Your task to perform on an android device: Open Amazon Image 0: 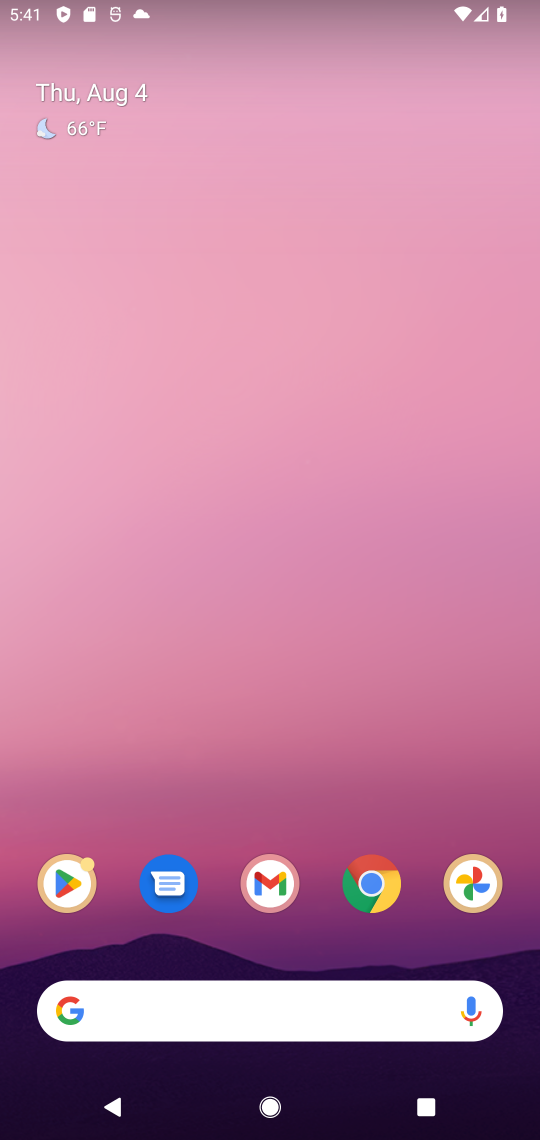
Step 0: click (255, 1015)
Your task to perform on an android device: Open Amazon Image 1: 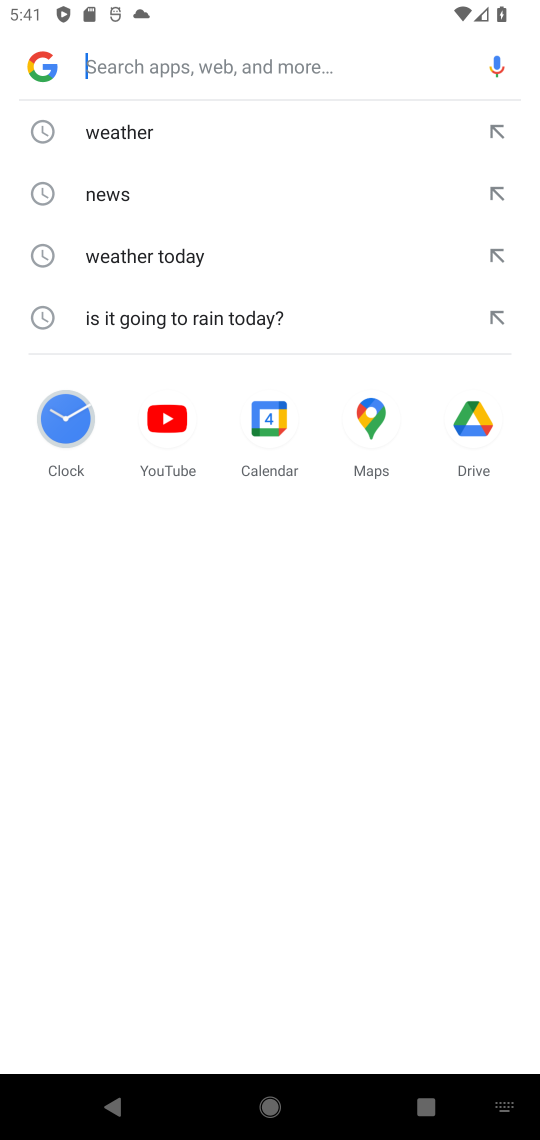
Step 1: type "amazon"
Your task to perform on an android device: Open Amazon Image 2: 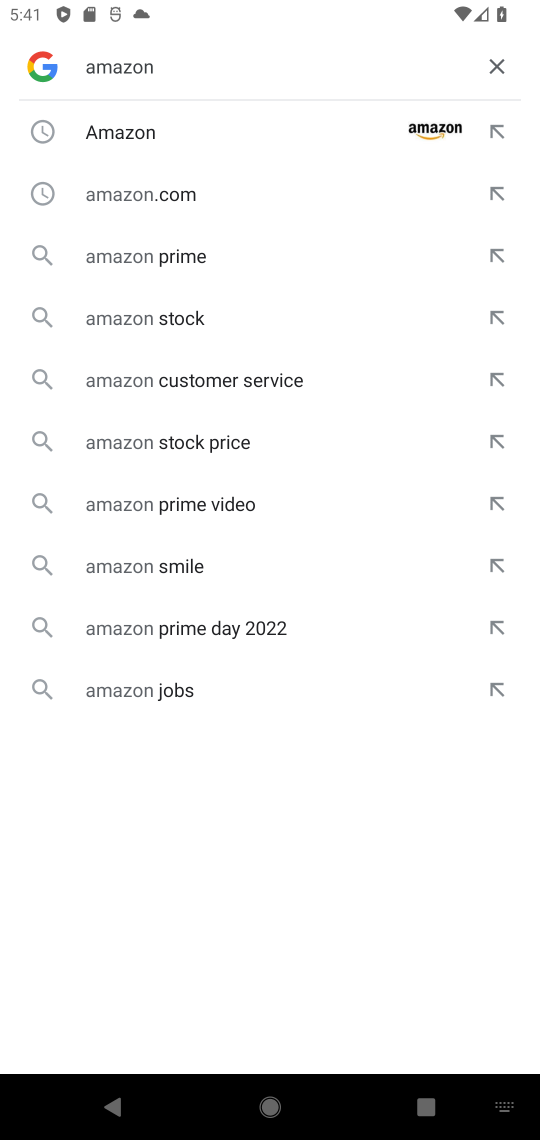
Step 2: click (301, 124)
Your task to perform on an android device: Open Amazon Image 3: 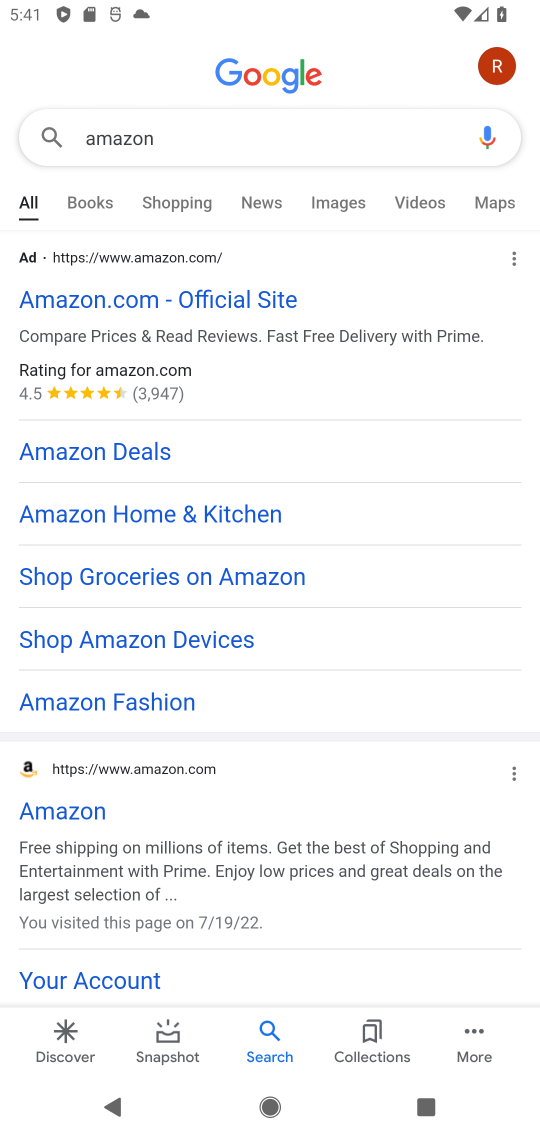
Step 3: click (137, 296)
Your task to perform on an android device: Open Amazon Image 4: 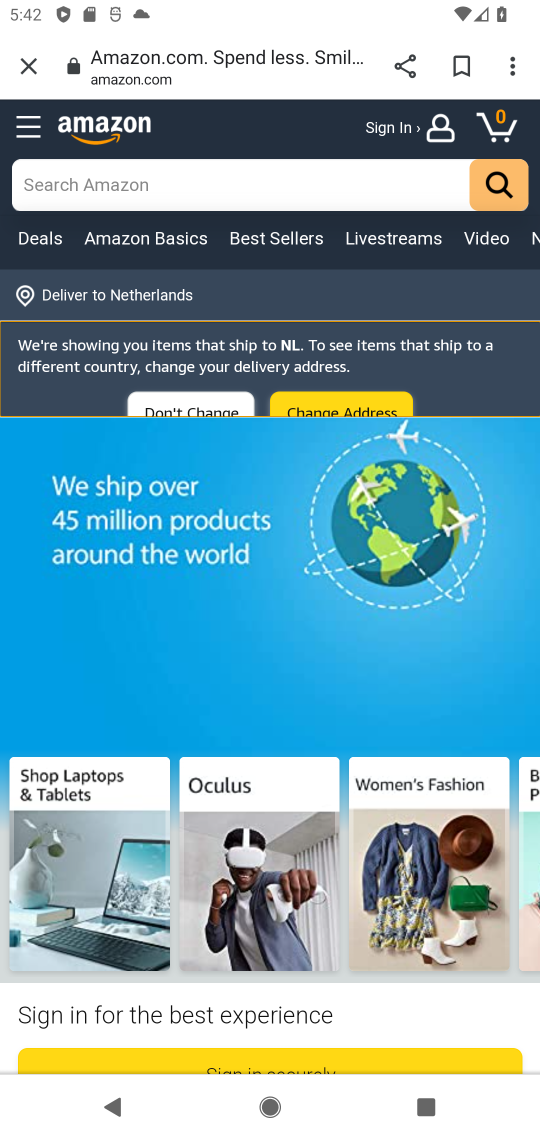
Step 4: task complete